Your task to perform on an android device: Open display settings Image 0: 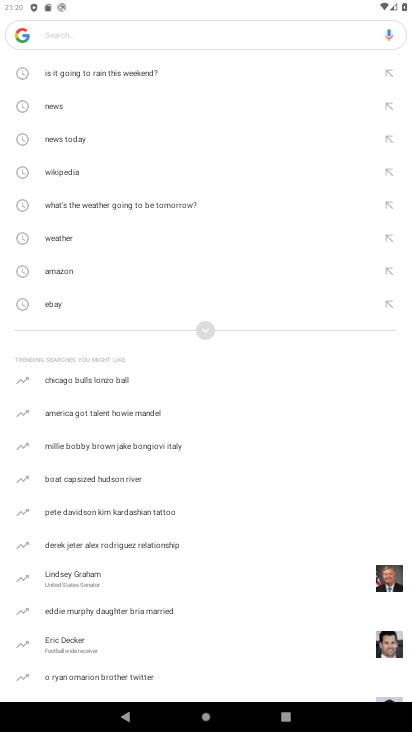
Step 0: press home button
Your task to perform on an android device: Open display settings Image 1: 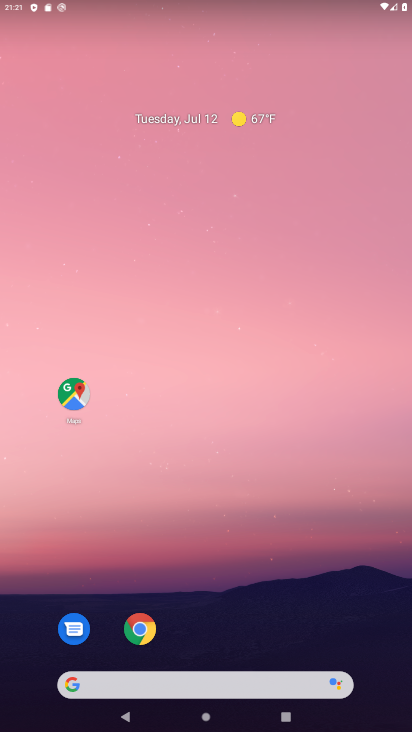
Step 1: drag from (239, 709) to (361, 5)
Your task to perform on an android device: Open display settings Image 2: 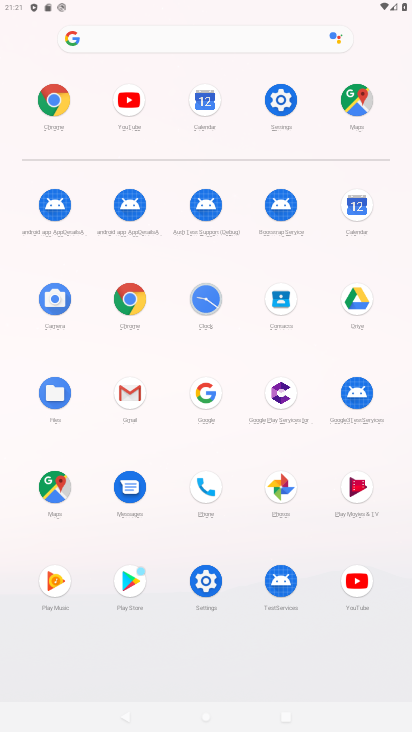
Step 2: click (278, 106)
Your task to perform on an android device: Open display settings Image 3: 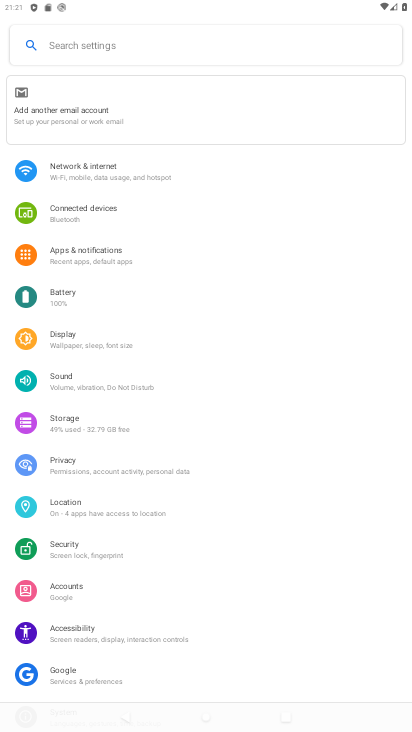
Step 3: click (97, 333)
Your task to perform on an android device: Open display settings Image 4: 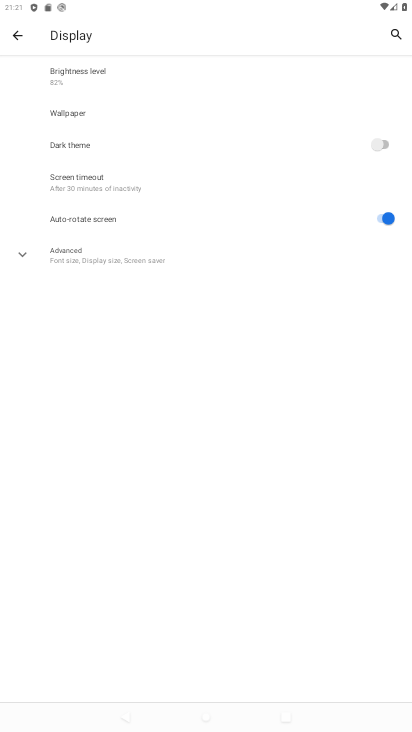
Step 4: task complete